Your task to perform on an android device: Open Maps and search for coffee Image 0: 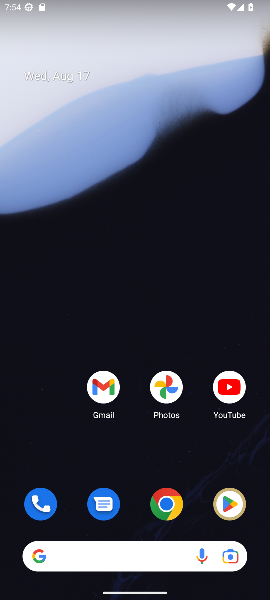
Step 0: drag from (144, 417) to (167, 126)
Your task to perform on an android device: Open Maps and search for coffee Image 1: 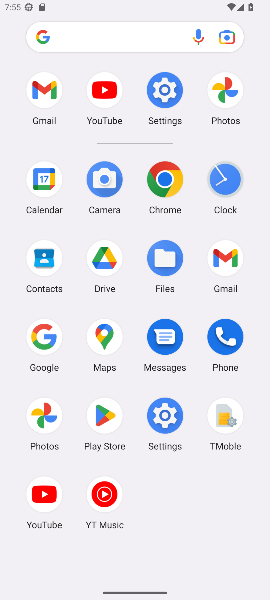
Step 1: click (102, 348)
Your task to perform on an android device: Open Maps and search for coffee Image 2: 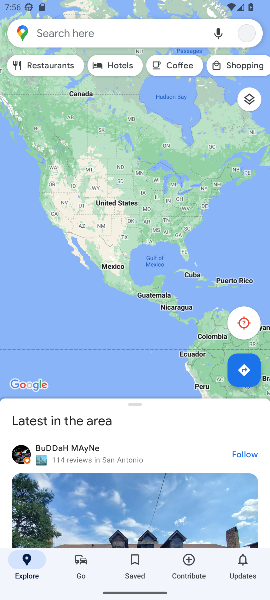
Step 2: click (171, 36)
Your task to perform on an android device: Open Maps and search for coffee Image 3: 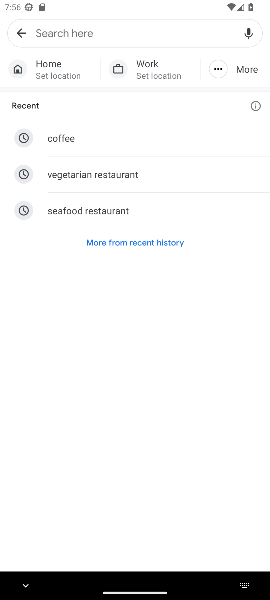
Step 3: click (130, 142)
Your task to perform on an android device: Open Maps and search for coffee Image 4: 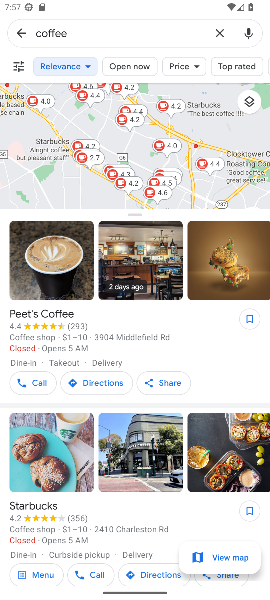
Step 4: task complete